Your task to perform on an android device: turn on notifications settings in the gmail app Image 0: 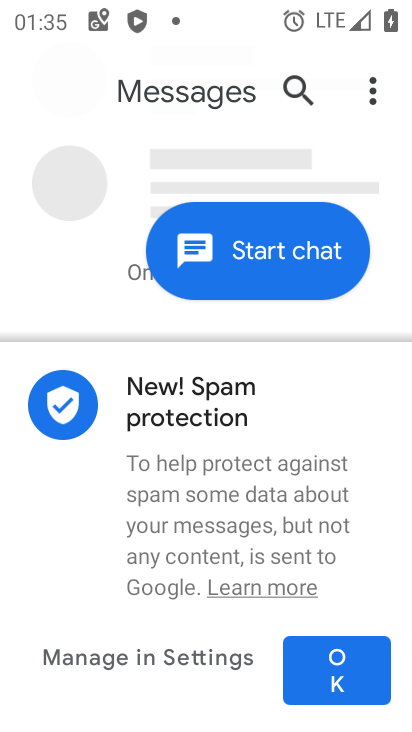
Step 0: press home button
Your task to perform on an android device: turn on notifications settings in the gmail app Image 1: 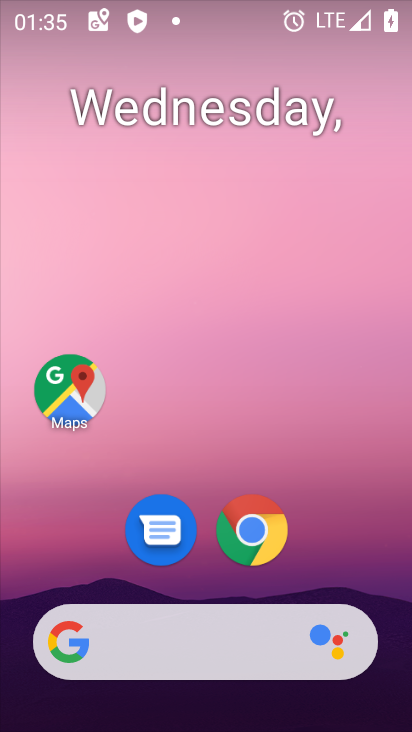
Step 1: drag from (382, 547) to (384, 132)
Your task to perform on an android device: turn on notifications settings in the gmail app Image 2: 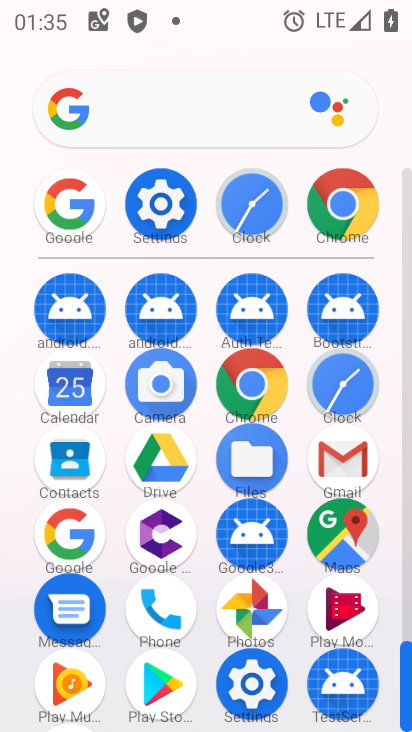
Step 2: click (319, 450)
Your task to perform on an android device: turn on notifications settings in the gmail app Image 3: 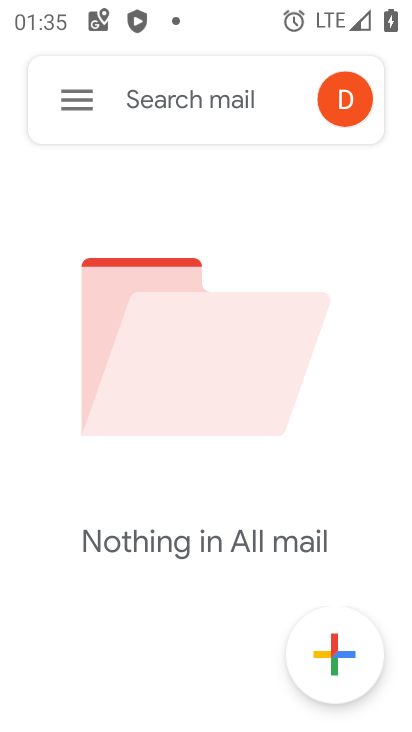
Step 3: click (68, 116)
Your task to perform on an android device: turn on notifications settings in the gmail app Image 4: 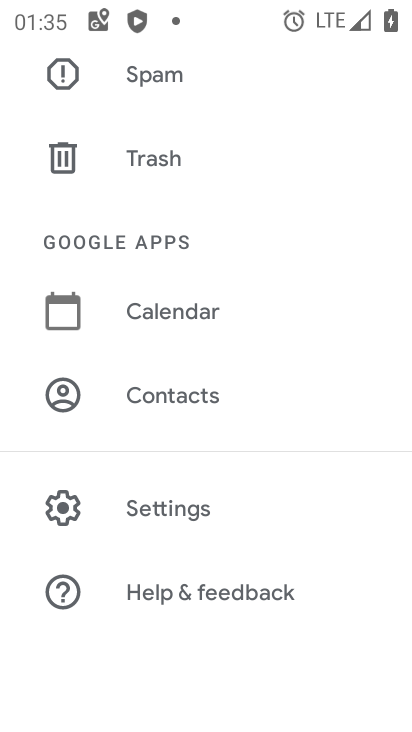
Step 4: drag from (142, 627) to (199, 319)
Your task to perform on an android device: turn on notifications settings in the gmail app Image 5: 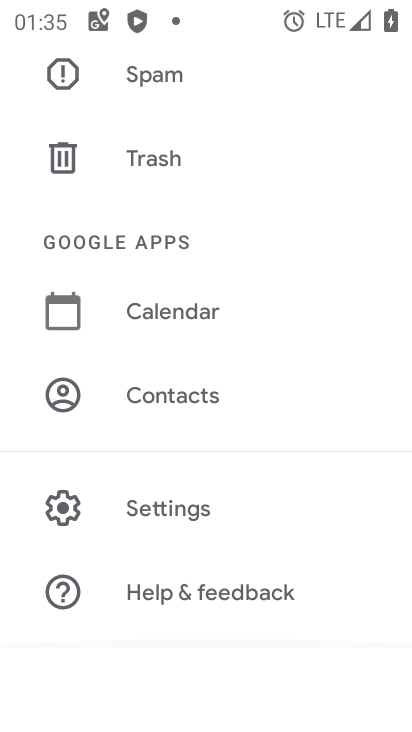
Step 5: click (178, 514)
Your task to perform on an android device: turn on notifications settings in the gmail app Image 6: 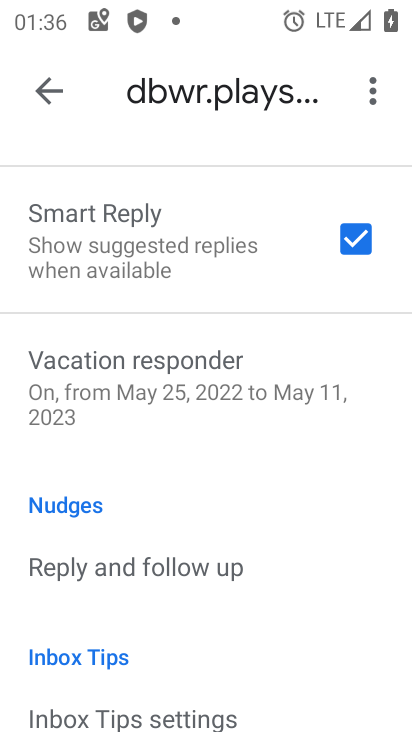
Step 6: drag from (214, 233) to (184, 510)
Your task to perform on an android device: turn on notifications settings in the gmail app Image 7: 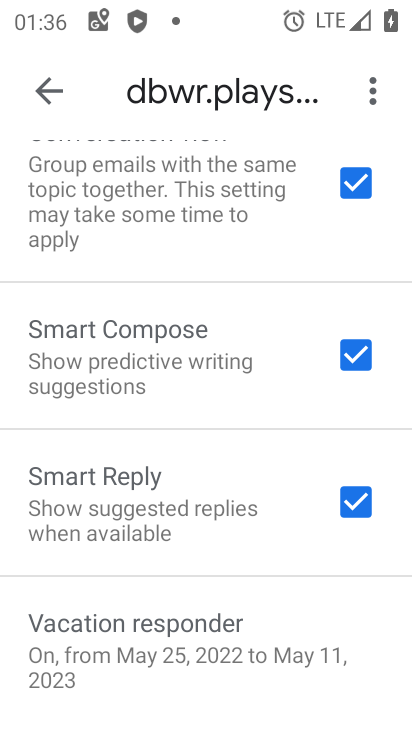
Step 7: drag from (213, 217) to (189, 528)
Your task to perform on an android device: turn on notifications settings in the gmail app Image 8: 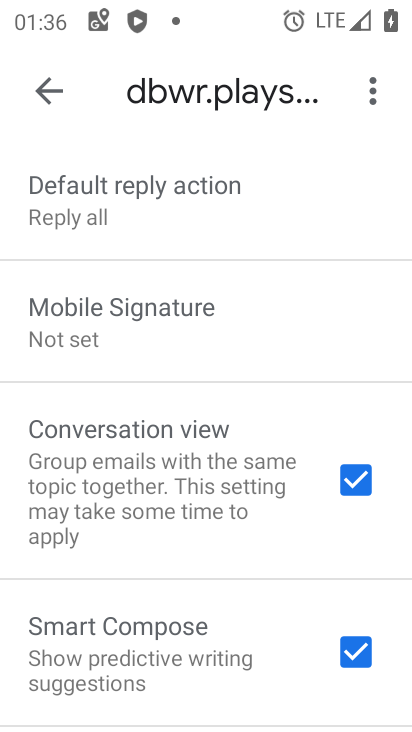
Step 8: drag from (236, 190) to (201, 643)
Your task to perform on an android device: turn on notifications settings in the gmail app Image 9: 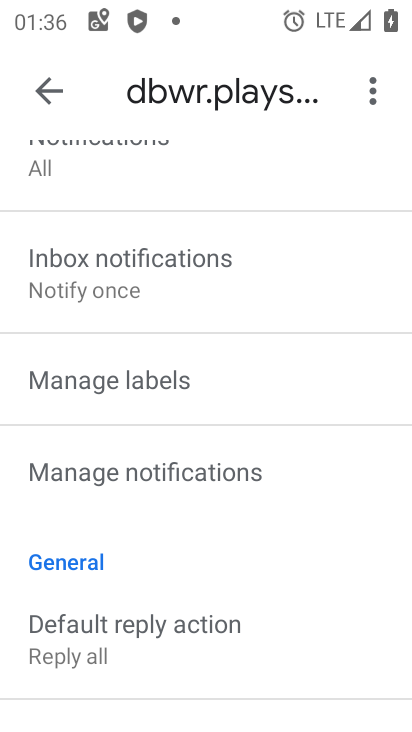
Step 9: drag from (238, 256) to (227, 673)
Your task to perform on an android device: turn on notifications settings in the gmail app Image 10: 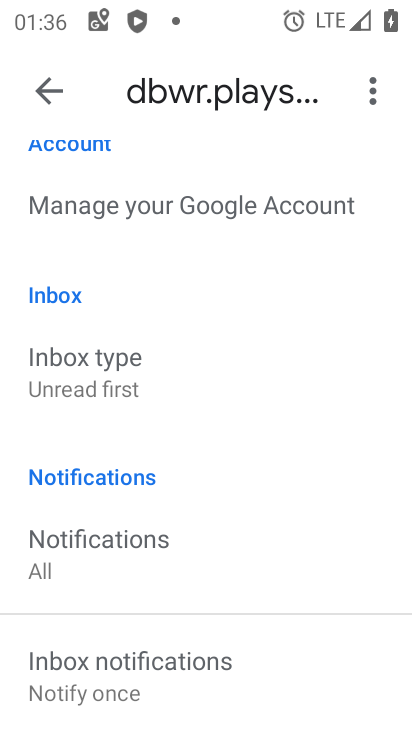
Step 10: click (134, 549)
Your task to perform on an android device: turn on notifications settings in the gmail app Image 11: 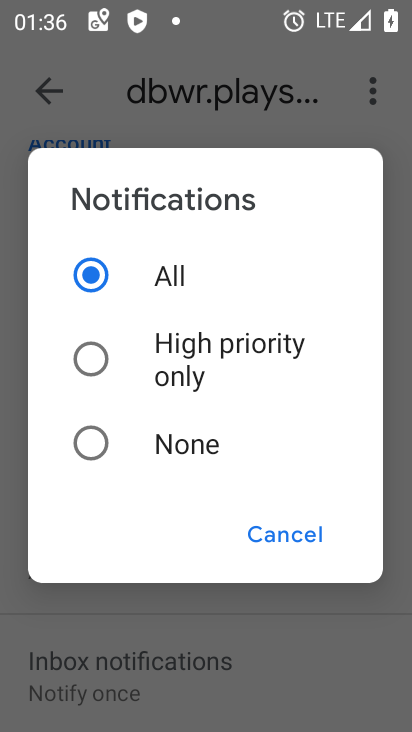
Step 11: task complete